Your task to perform on an android device: change keyboard looks Image 0: 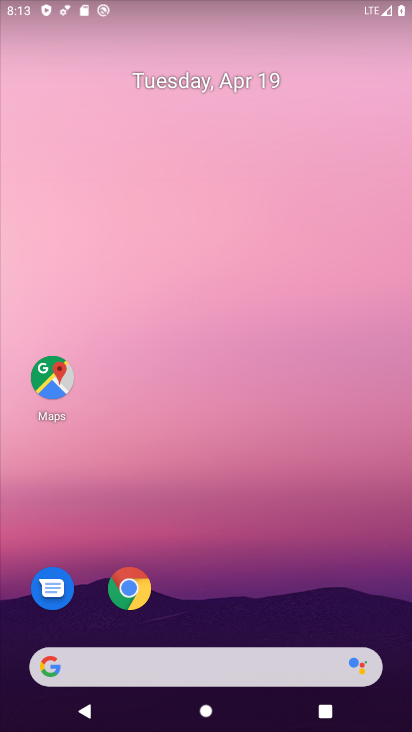
Step 0: drag from (204, 727) to (184, 8)
Your task to perform on an android device: change keyboard looks Image 1: 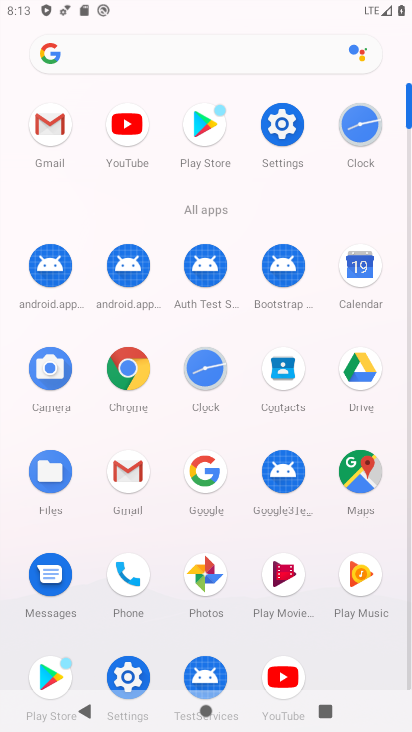
Step 1: click (131, 670)
Your task to perform on an android device: change keyboard looks Image 2: 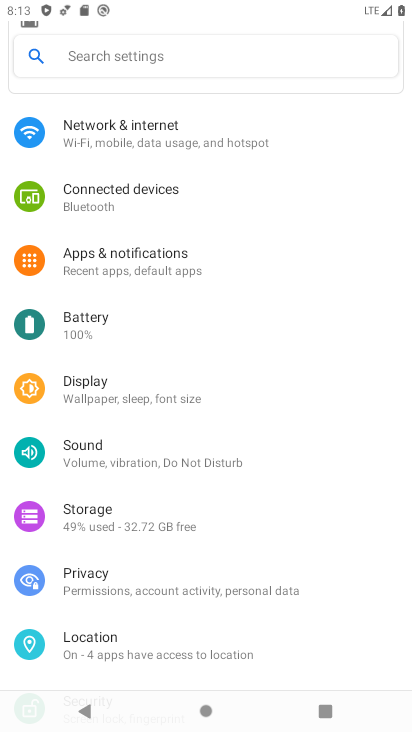
Step 2: drag from (157, 628) to (154, 133)
Your task to perform on an android device: change keyboard looks Image 3: 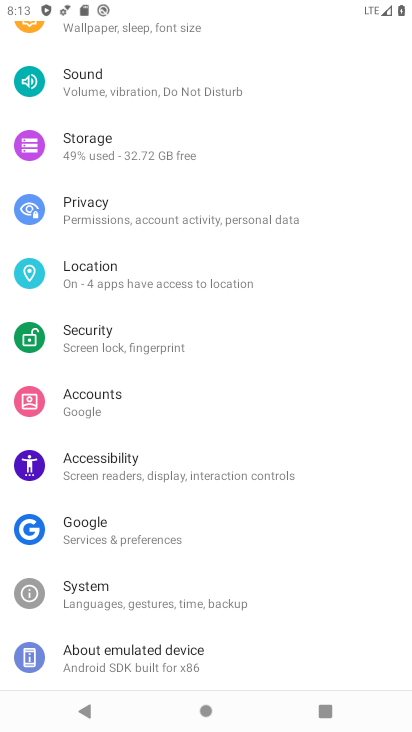
Step 3: click (104, 596)
Your task to perform on an android device: change keyboard looks Image 4: 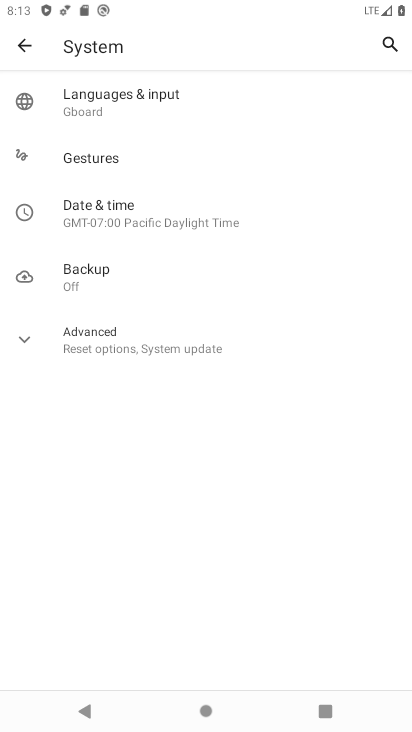
Step 4: click (112, 93)
Your task to perform on an android device: change keyboard looks Image 5: 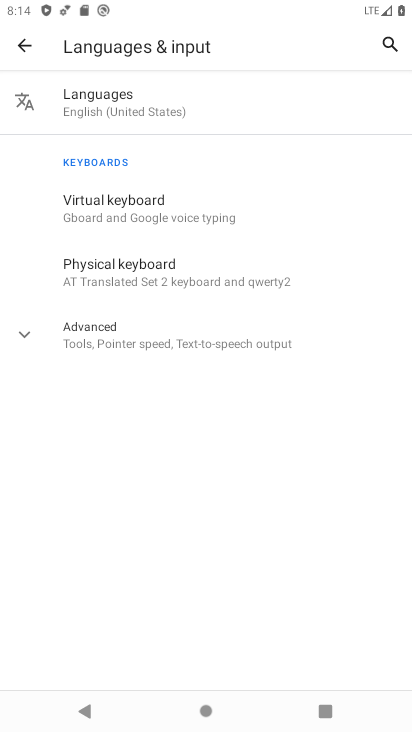
Step 5: click (163, 213)
Your task to perform on an android device: change keyboard looks Image 6: 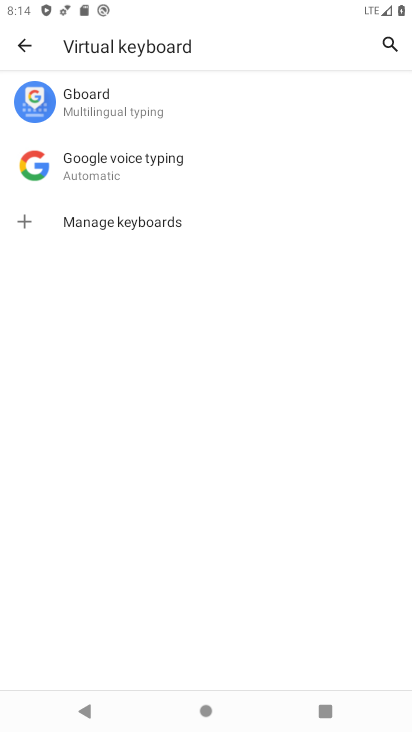
Step 6: click (94, 105)
Your task to perform on an android device: change keyboard looks Image 7: 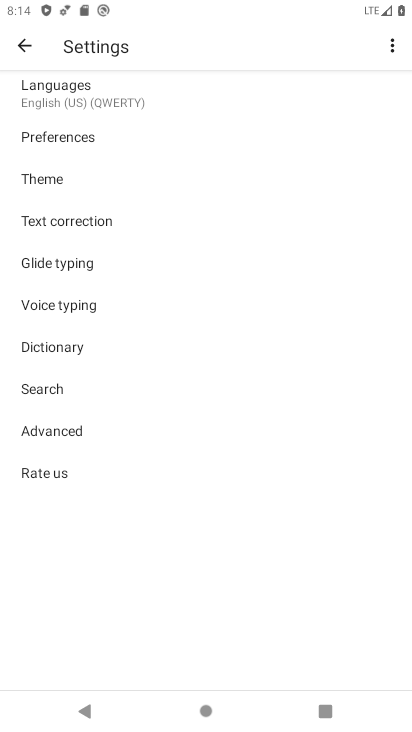
Step 7: click (47, 179)
Your task to perform on an android device: change keyboard looks Image 8: 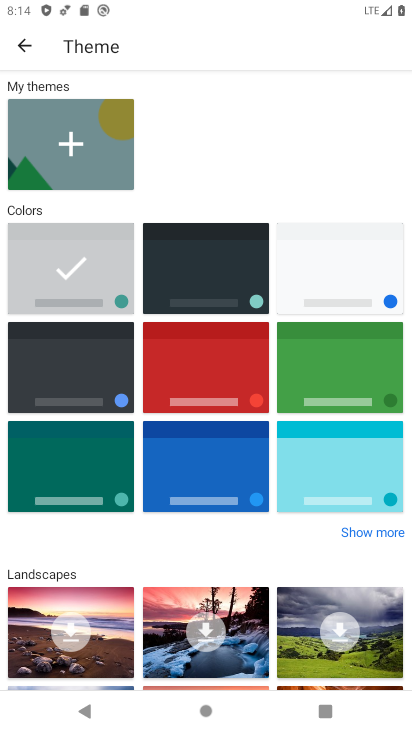
Step 8: click (215, 279)
Your task to perform on an android device: change keyboard looks Image 9: 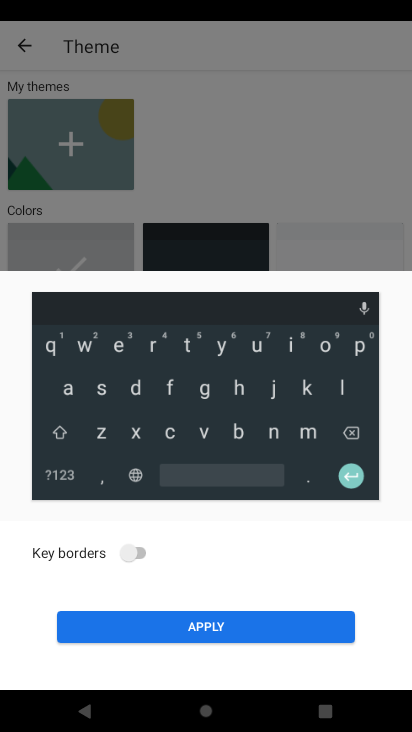
Step 9: click (141, 550)
Your task to perform on an android device: change keyboard looks Image 10: 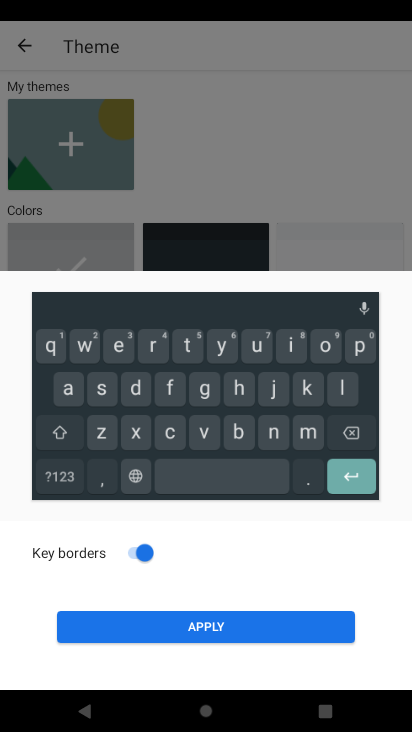
Step 10: click (210, 625)
Your task to perform on an android device: change keyboard looks Image 11: 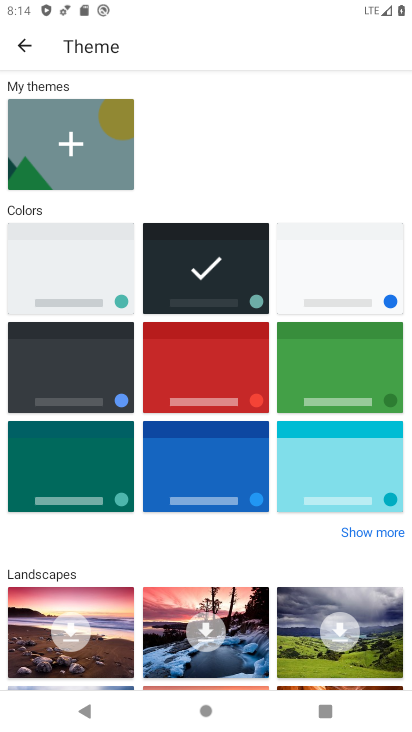
Step 11: task complete